Your task to perform on an android device: open app "Instagram" (install if not already installed) Image 0: 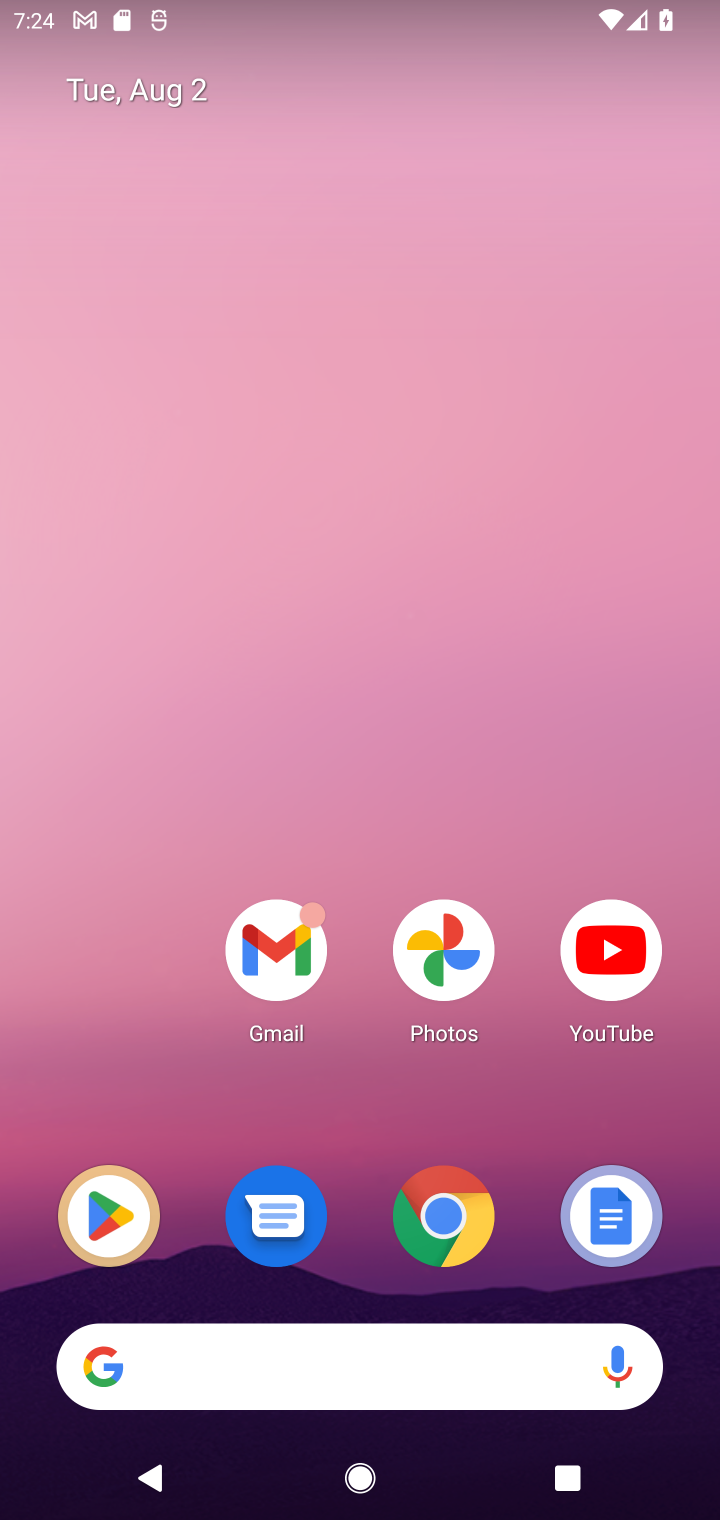
Step 0: click (119, 1219)
Your task to perform on an android device: open app "Instagram" (install if not already installed) Image 1: 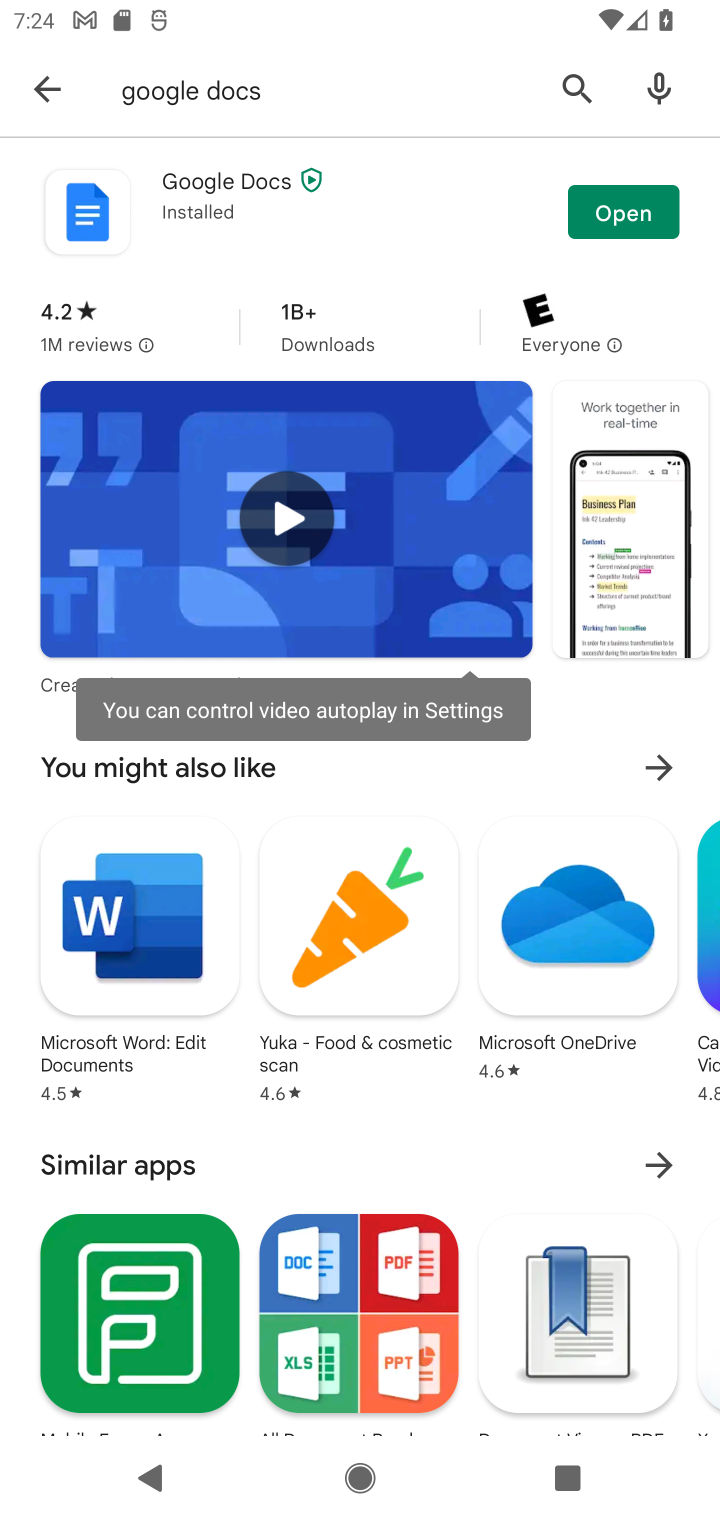
Step 1: click (572, 66)
Your task to perform on an android device: open app "Instagram" (install if not already installed) Image 2: 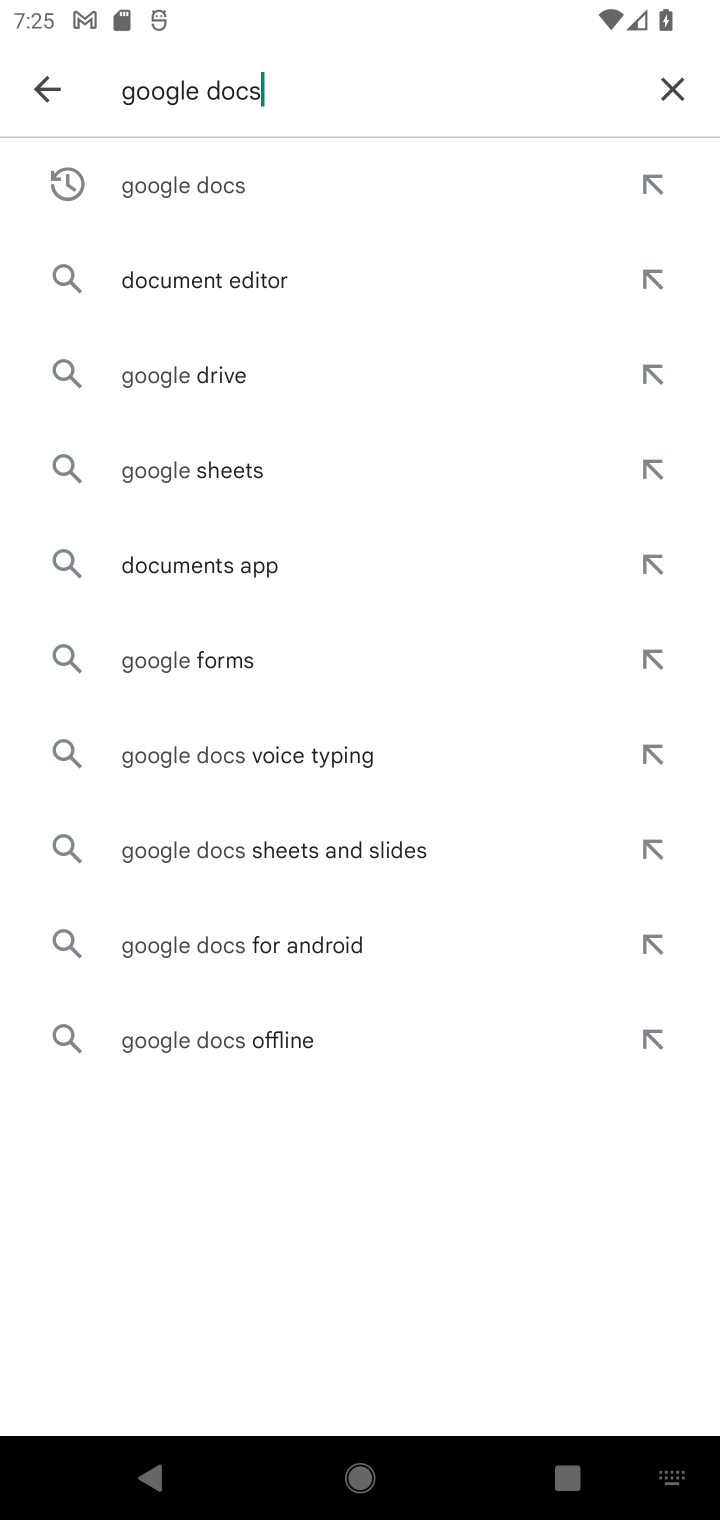
Step 2: click (661, 75)
Your task to perform on an android device: open app "Instagram" (install if not already installed) Image 3: 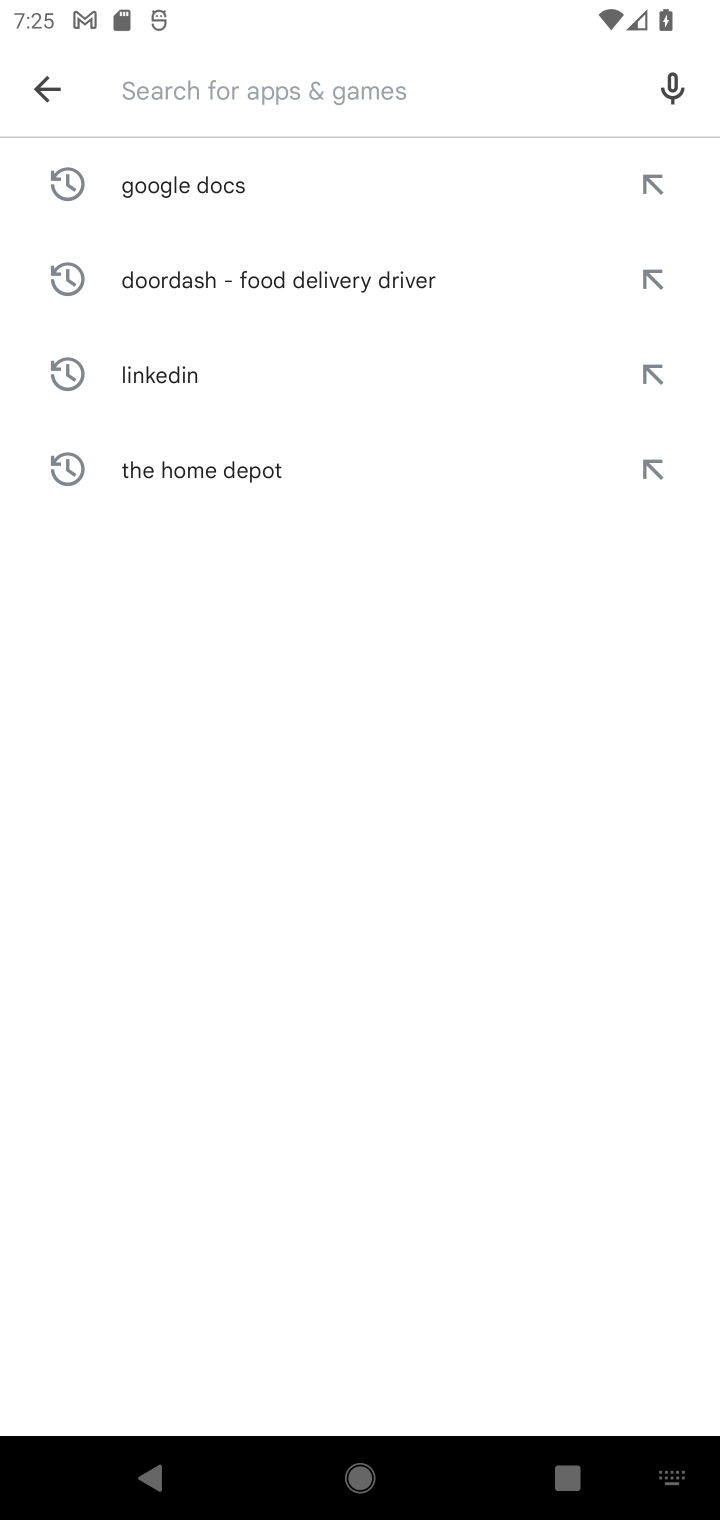
Step 3: type "Instagram"
Your task to perform on an android device: open app "Instagram" (install if not already installed) Image 4: 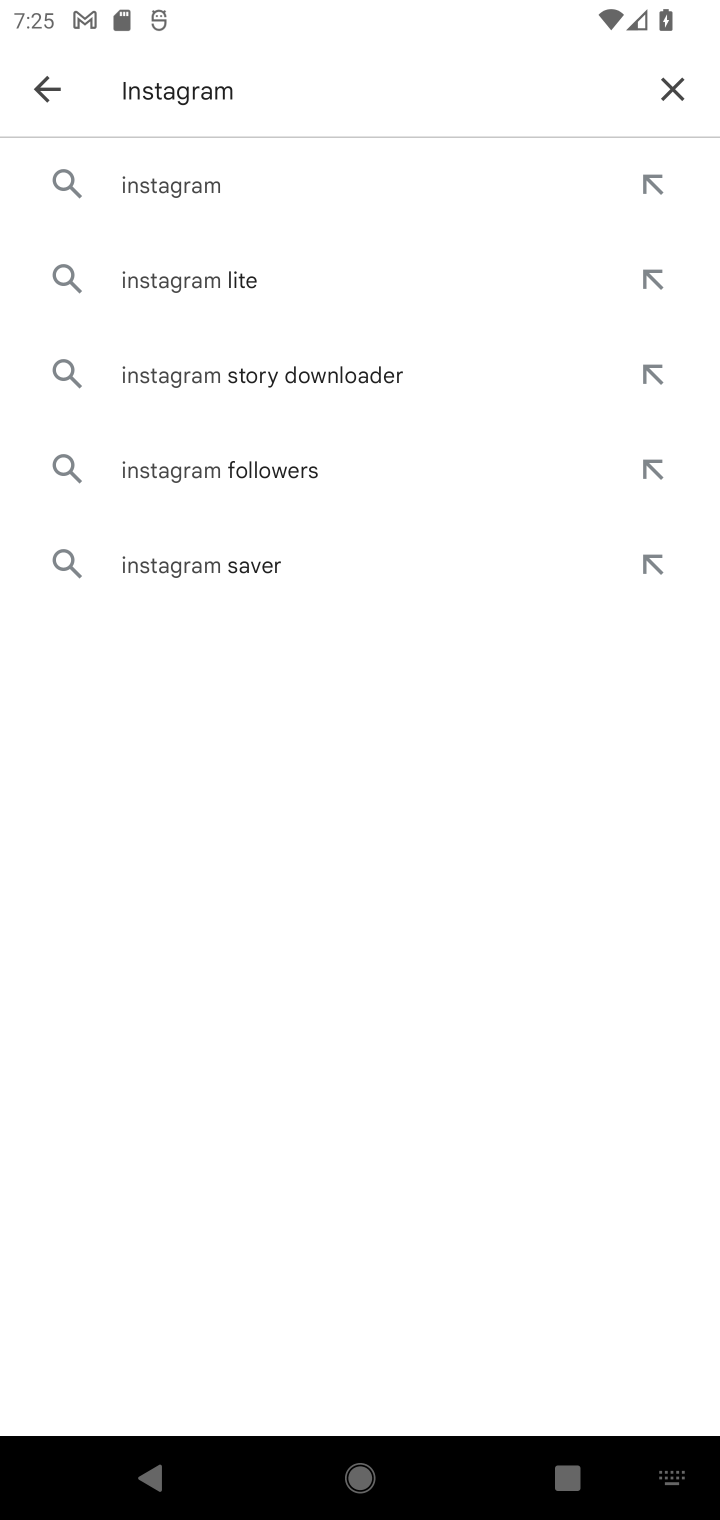
Step 4: click (190, 183)
Your task to perform on an android device: open app "Instagram" (install if not already installed) Image 5: 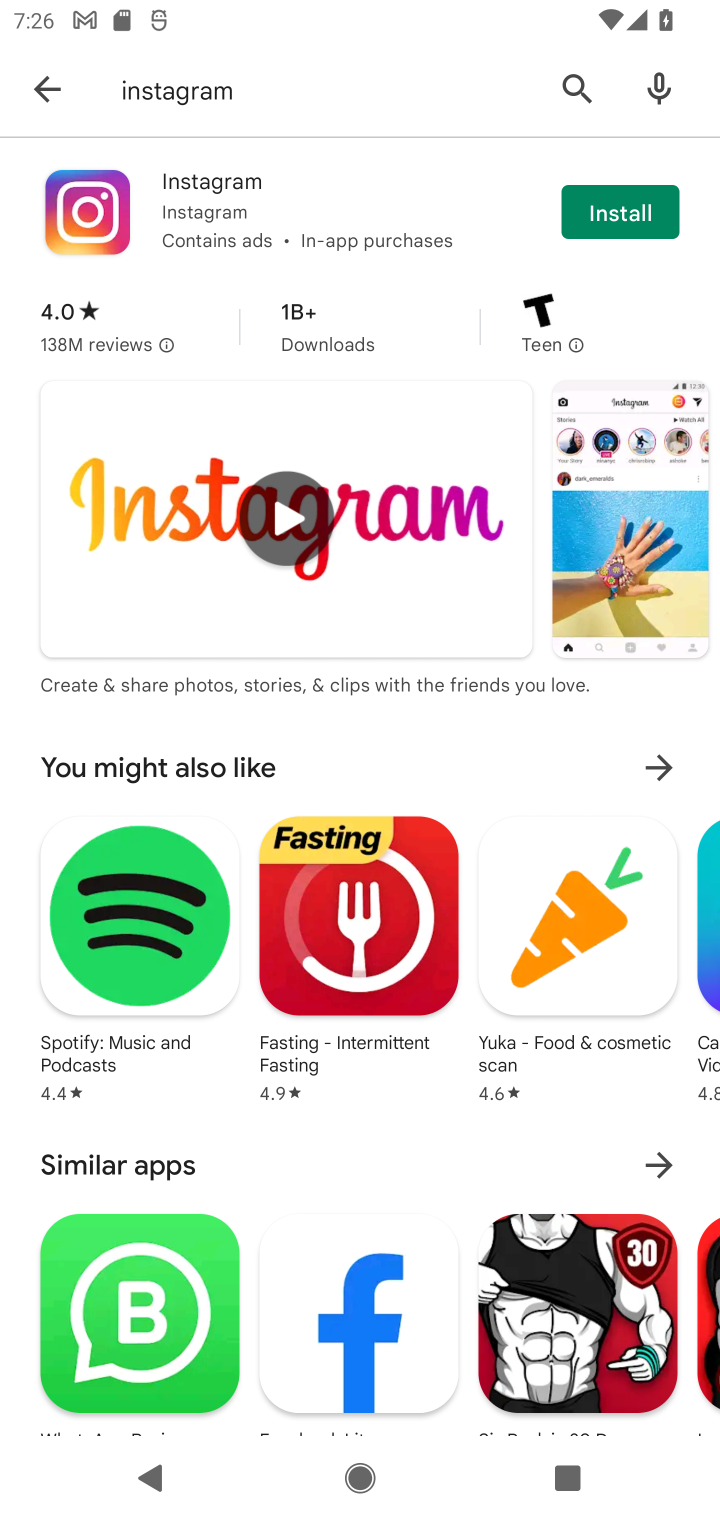
Step 5: click (649, 216)
Your task to perform on an android device: open app "Instagram" (install if not already installed) Image 6: 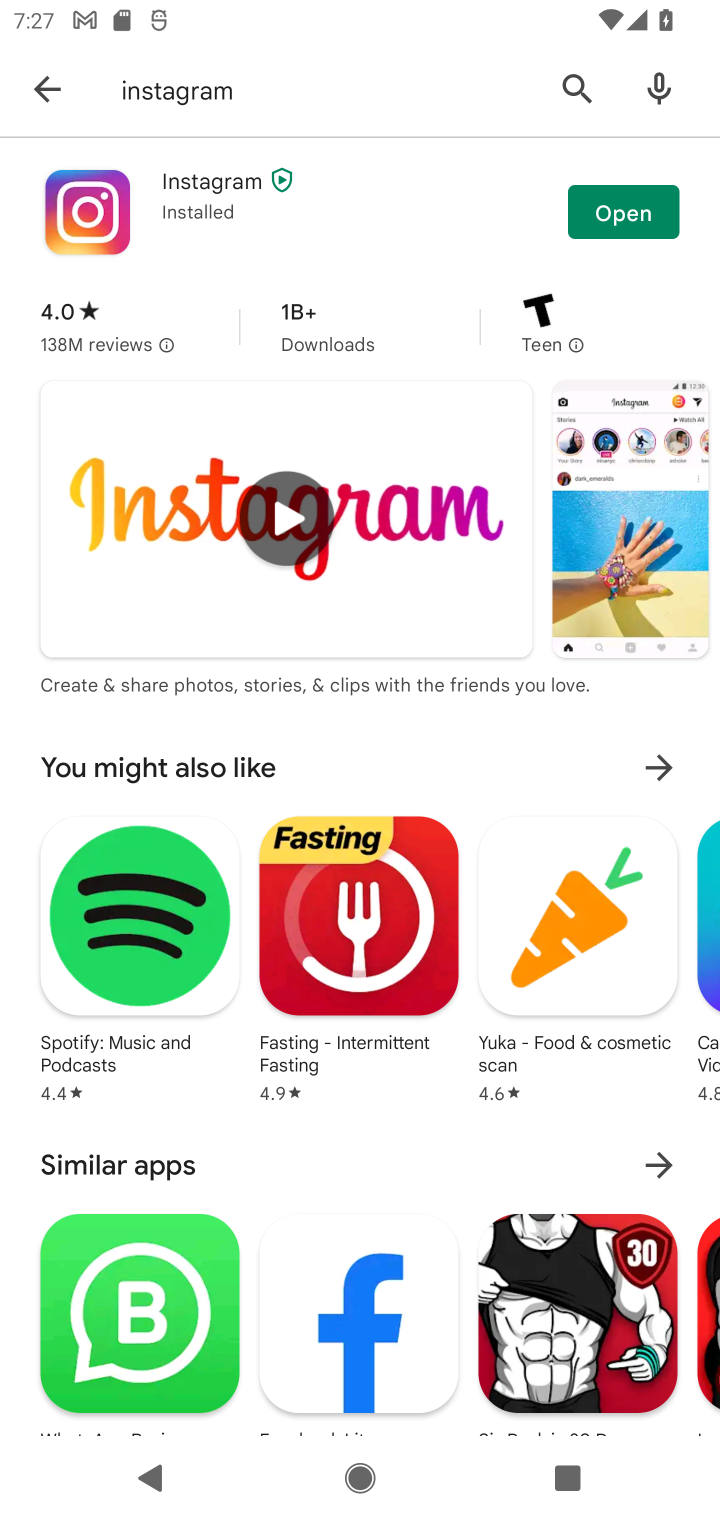
Step 6: click (635, 219)
Your task to perform on an android device: open app "Instagram" (install if not already installed) Image 7: 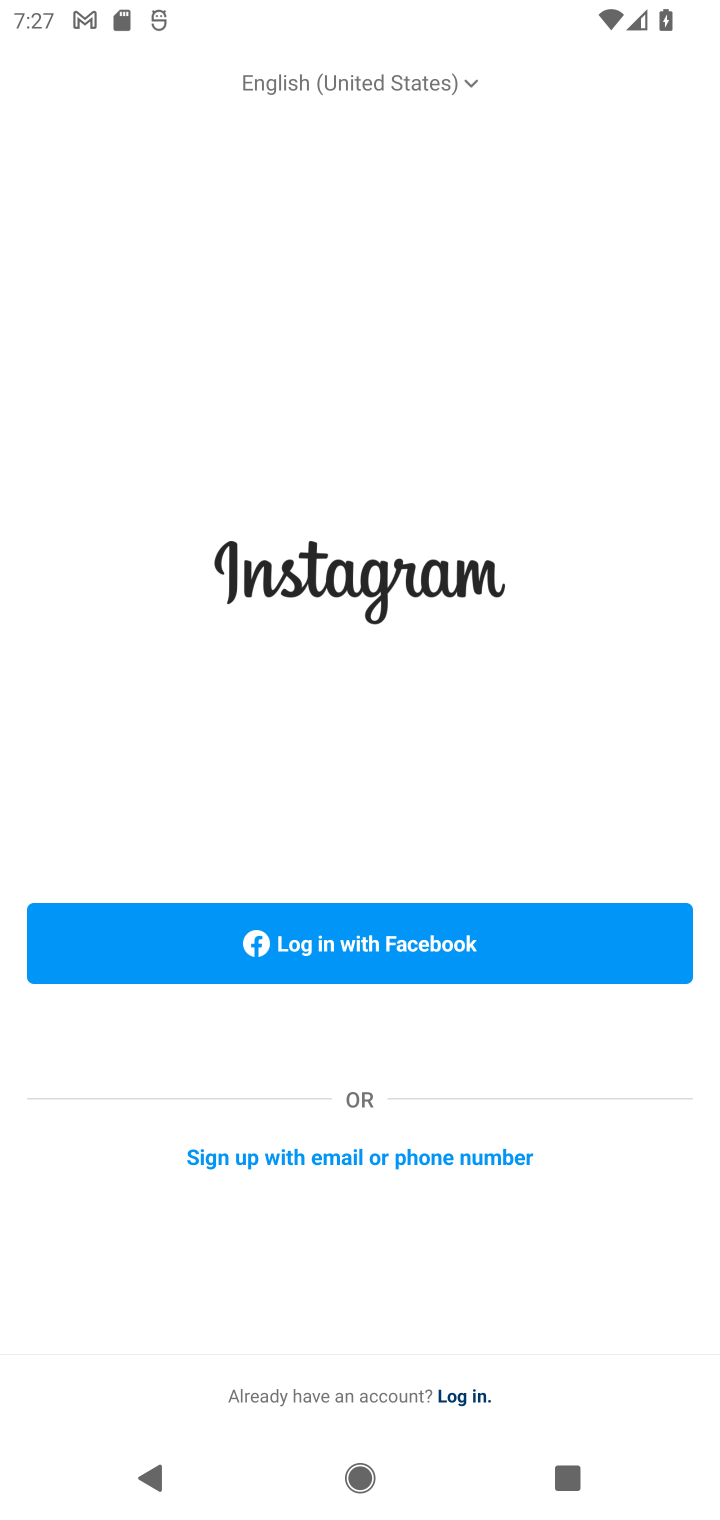
Step 7: task complete